Your task to perform on an android device: turn on the 12-hour format for clock Image 0: 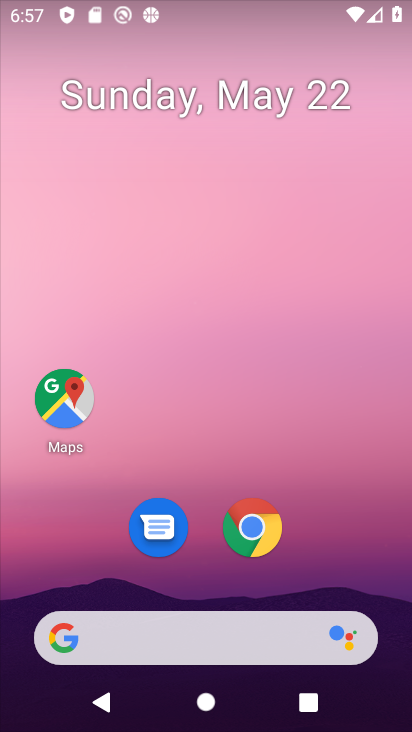
Step 0: drag from (343, 548) to (269, 14)
Your task to perform on an android device: turn on the 12-hour format for clock Image 1: 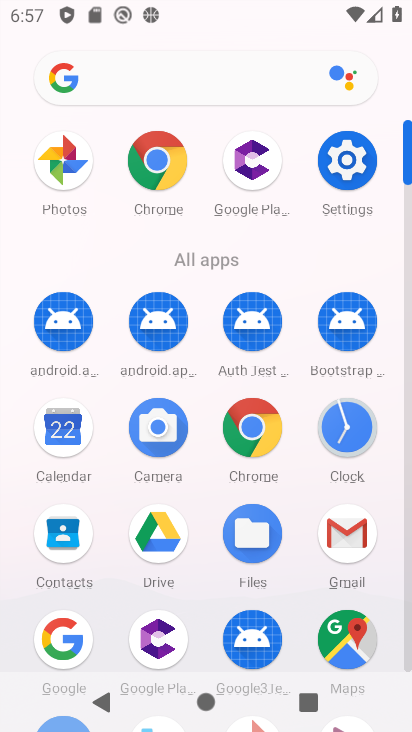
Step 1: click (128, 162)
Your task to perform on an android device: turn on the 12-hour format for clock Image 2: 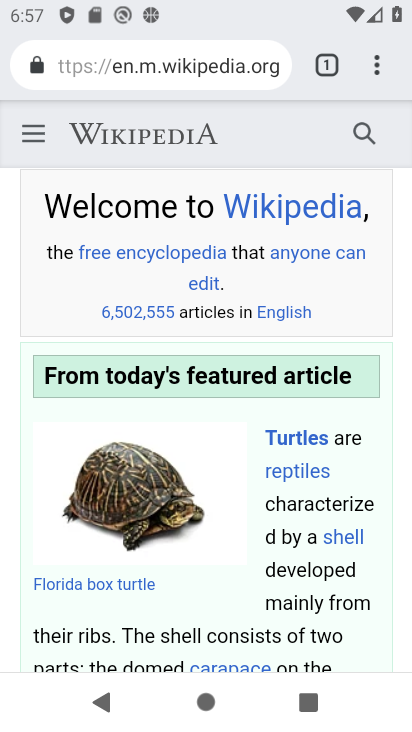
Step 2: drag from (377, 58) to (289, 500)
Your task to perform on an android device: turn on the 12-hour format for clock Image 3: 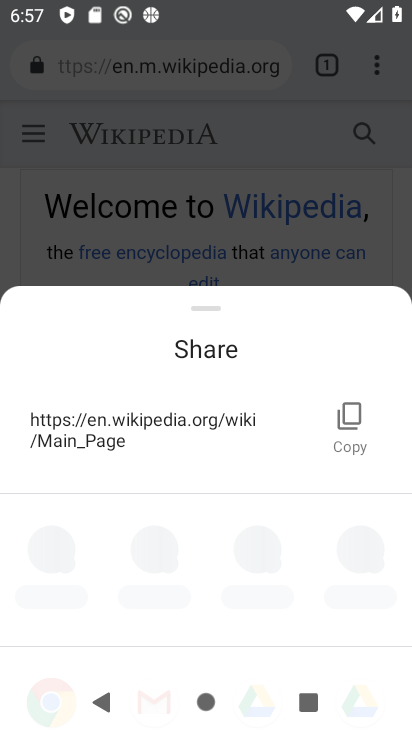
Step 3: press home button
Your task to perform on an android device: turn on the 12-hour format for clock Image 4: 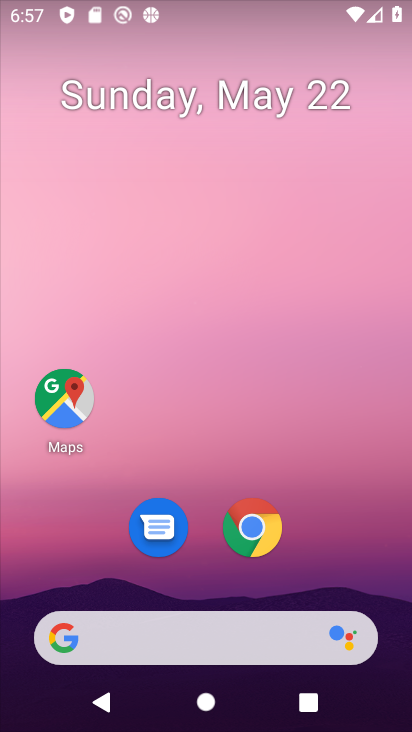
Step 4: drag from (357, 548) to (237, 34)
Your task to perform on an android device: turn on the 12-hour format for clock Image 5: 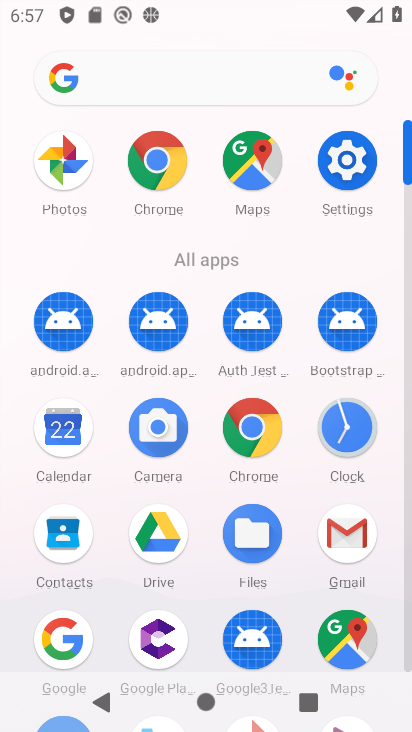
Step 5: click (357, 445)
Your task to perform on an android device: turn on the 12-hour format for clock Image 6: 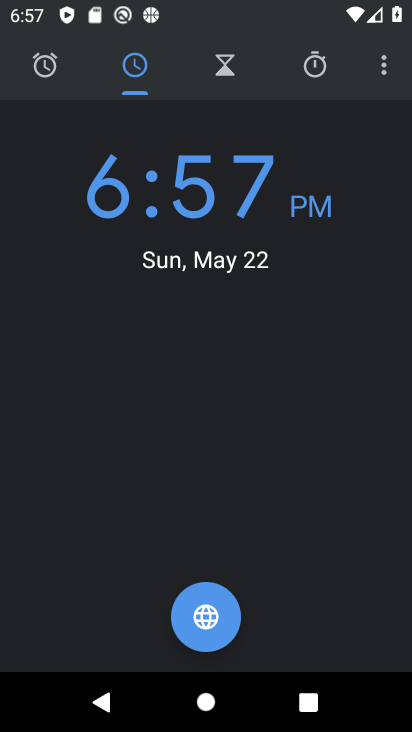
Step 6: click (384, 74)
Your task to perform on an android device: turn on the 12-hour format for clock Image 7: 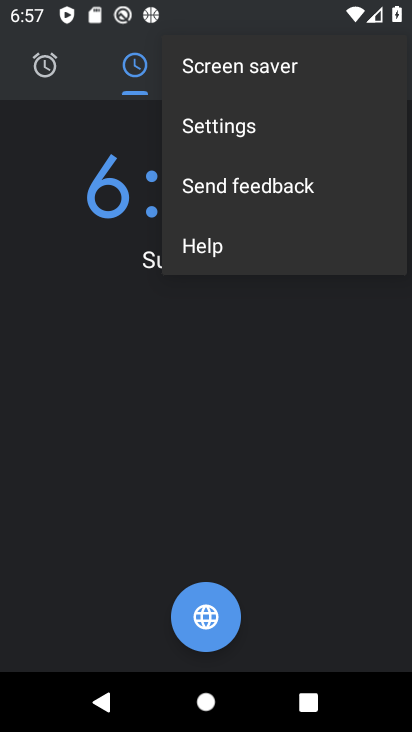
Step 7: click (220, 139)
Your task to perform on an android device: turn on the 12-hour format for clock Image 8: 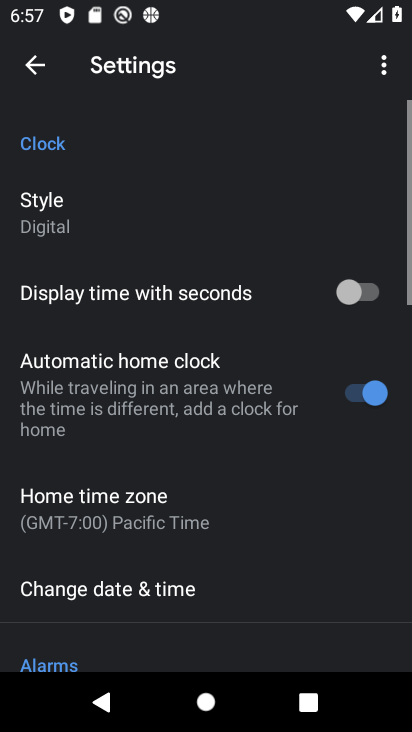
Step 8: drag from (238, 566) to (310, 212)
Your task to perform on an android device: turn on the 12-hour format for clock Image 9: 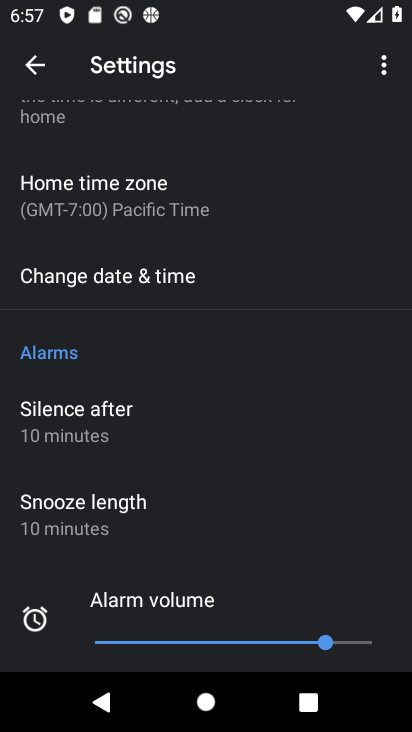
Step 9: click (106, 290)
Your task to perform on an android device: turn on the 12-hour format for clock Image 10: 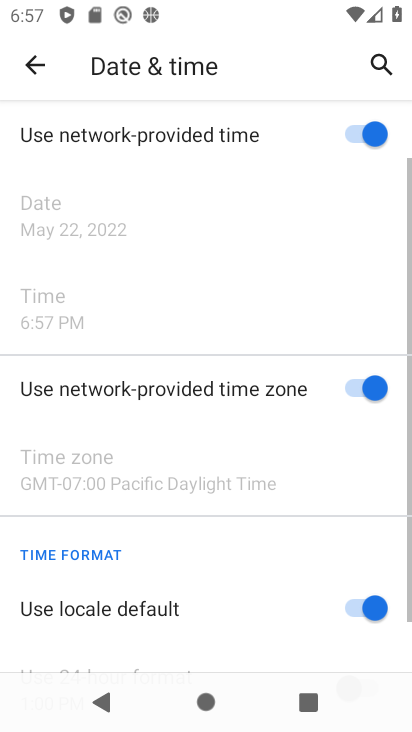
Step 10: task complete